Your task to perform on an android device: Open maps Image 0: 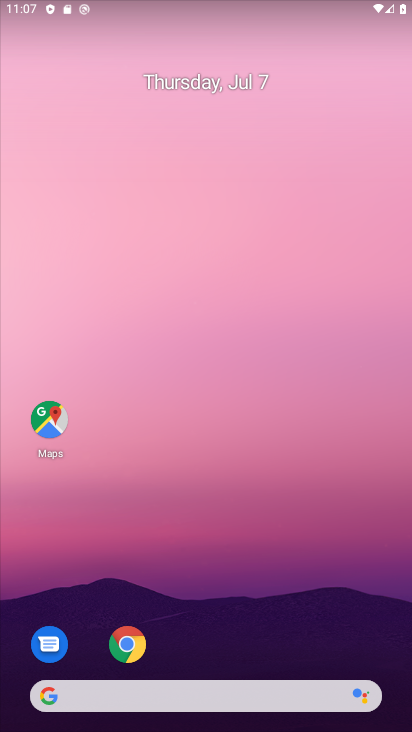
Step 0: drag from (203, 668) to (197, 364)
Your task to perform on an android device: Open maps Image 1: 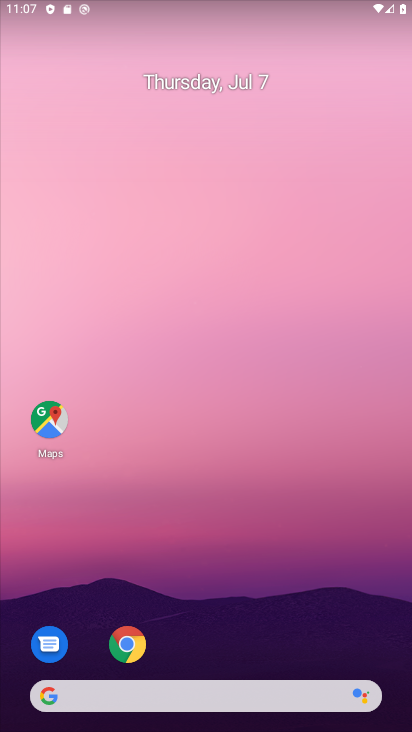
Step 1: drag from (167, 657) to (260, 260)
Your task to perform on an android device: Open maps Image 2: 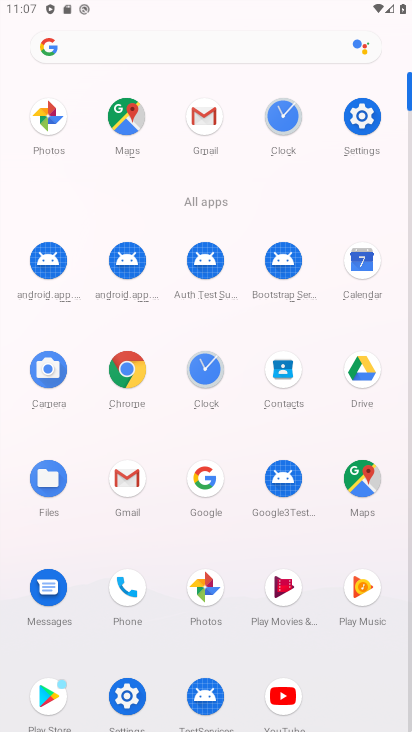
Step 2: click (356, 478)
Your task to perform on an android device: Open maps Image 3: 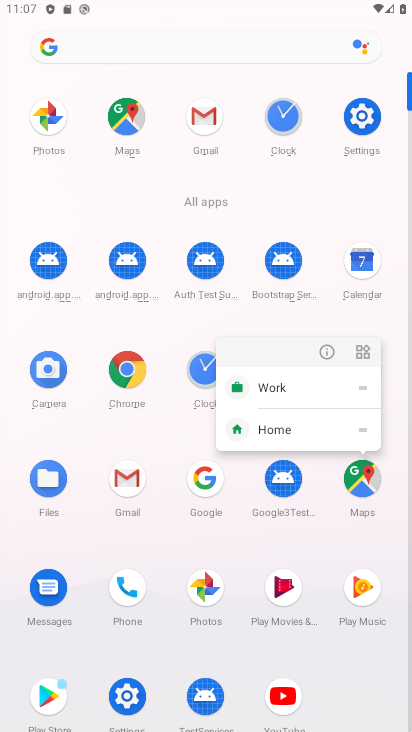
Step 3: click (321, 348)
Your task to perform on an android device: Open maps Image 4: 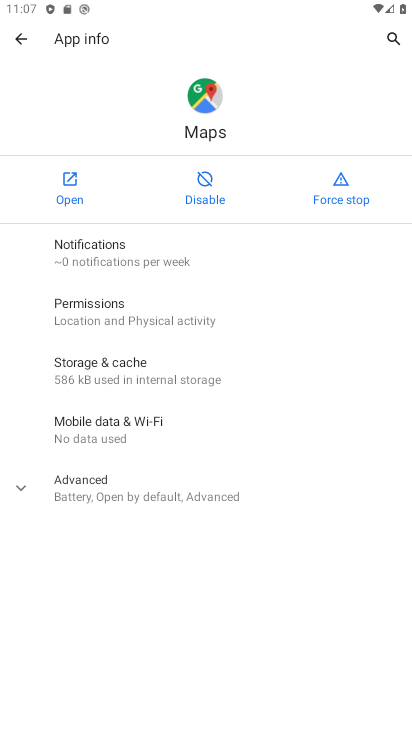
Step 4: click (74, 197)
Your task to perform on an android device: Open maps Image 5: 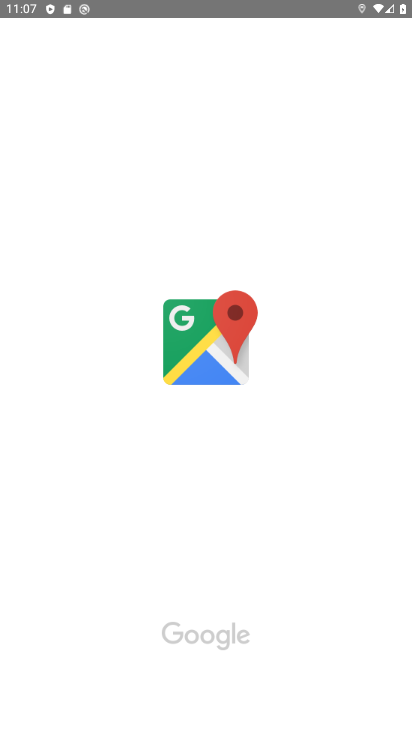
Step 5: task complete